Your task to perform on an android device: open app "Facebook" Image 0: 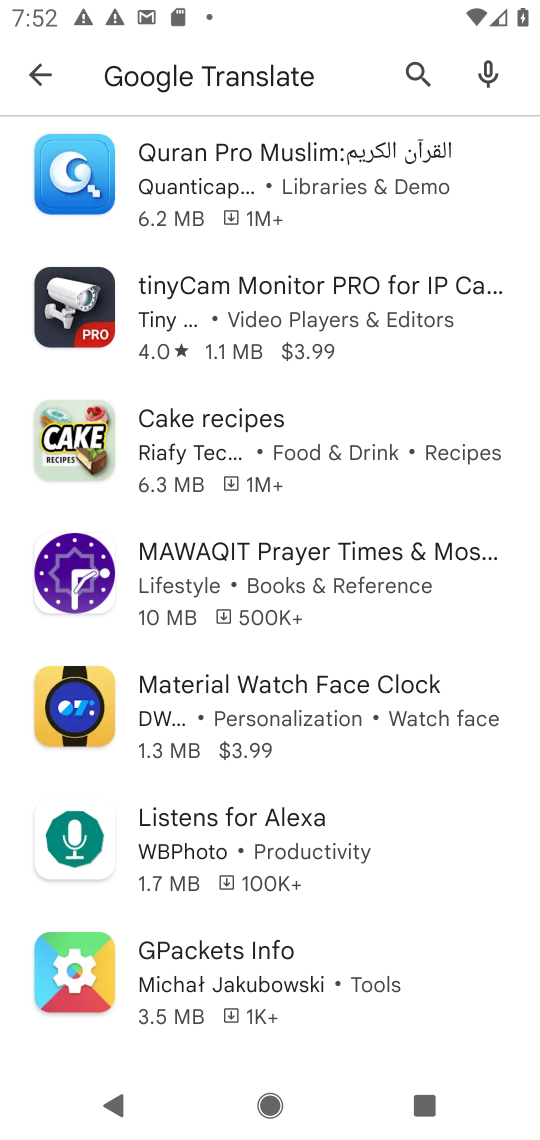
Step 0: task impossible